Your task to perform on an android device: Go to Yahoo.com Image 0: 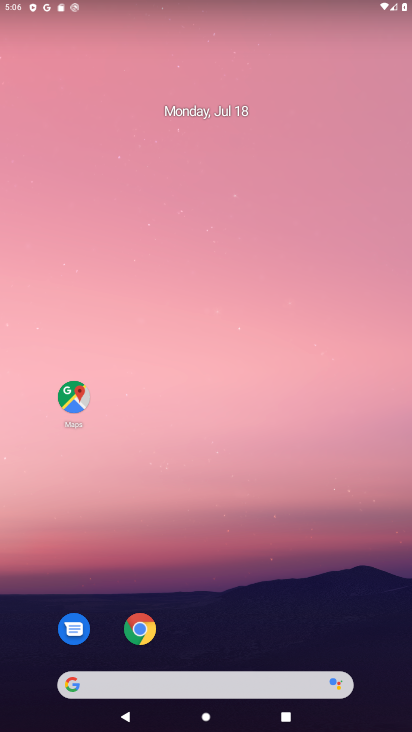
Step 0: drag from (220, 607) to (235, 133)
Your task to perform on an android device: Go to Yahoo.com Image 1: 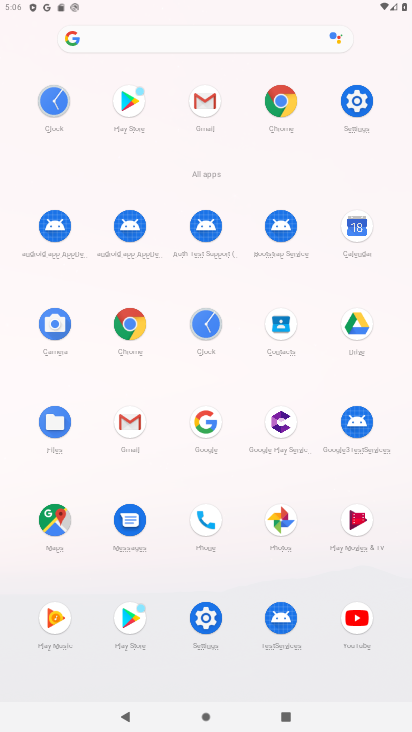
Step 1: click (285, 108)
Your task to perform on an android device: Go to Yahoo.com Image 2: 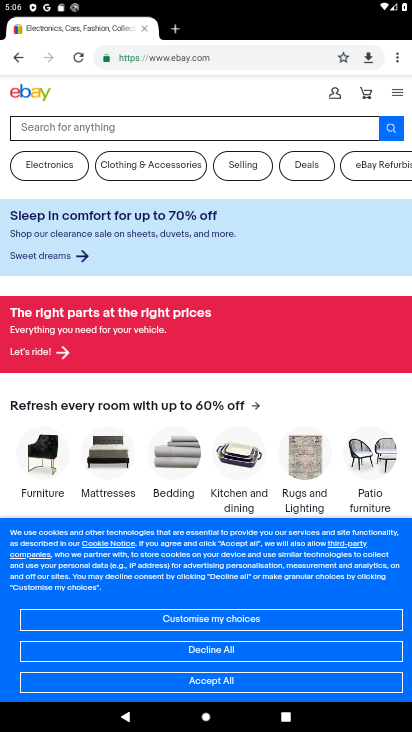
Step 2: click (191, 60)
Your task to perform on an android device: Go to Yahoo.com Image 3: 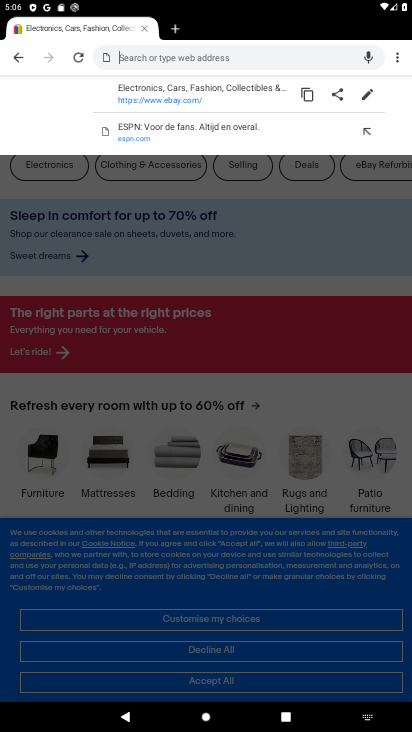
Step 3: type "yahoo.com"
Your task to perform on an android device: Go to Yahoo.com Image 4: 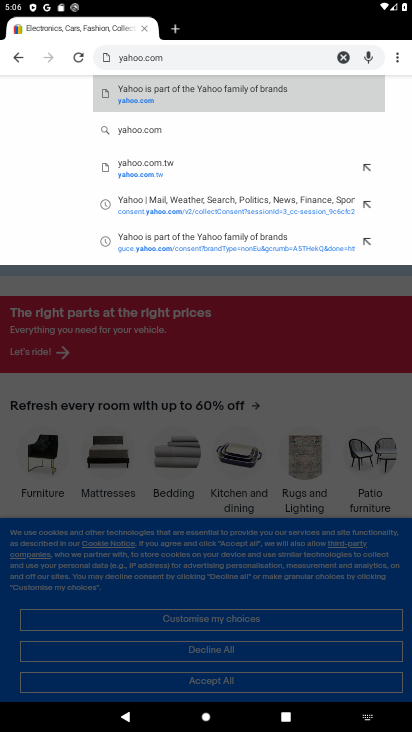
Step 4: click (135, 96)
Your task to perform on an android device: Go to Yahoo.com Image 5: 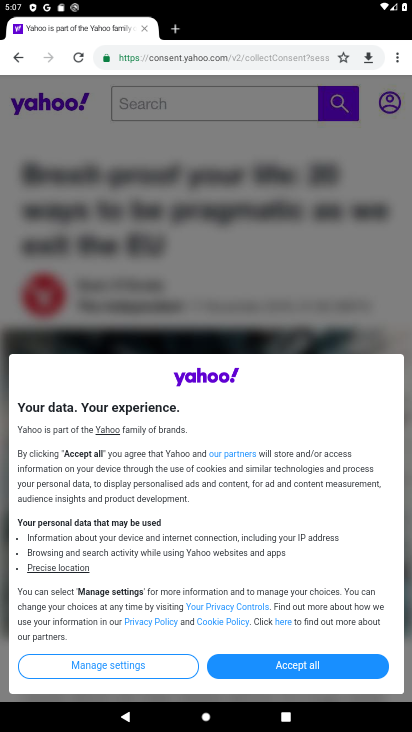
Step 5: task complete